Your task to perform on an android device: Search for seafood restaurants on Google Maps Image 0: 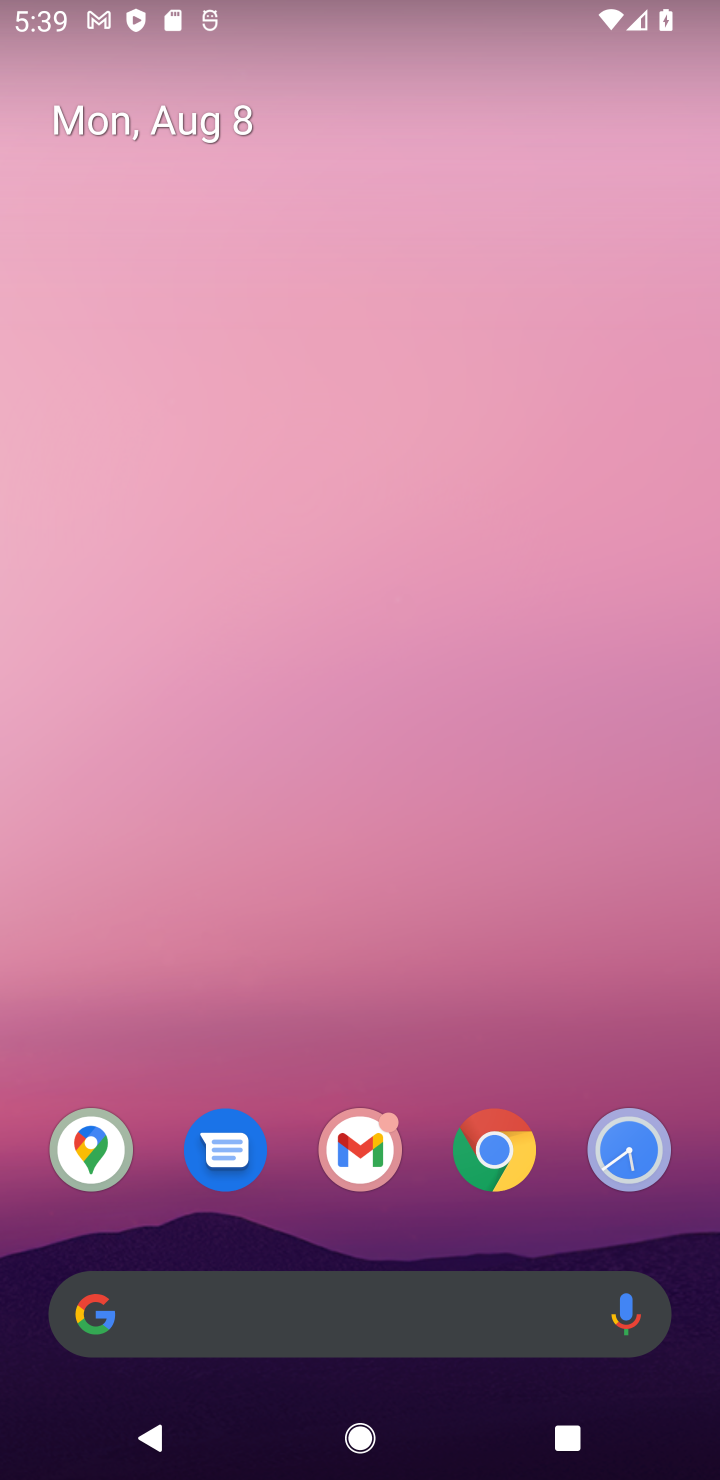
Step 0: click (109, 1161)
Your task to perform on an android device: Search for seafood restaurants on Google Maps Image 1: 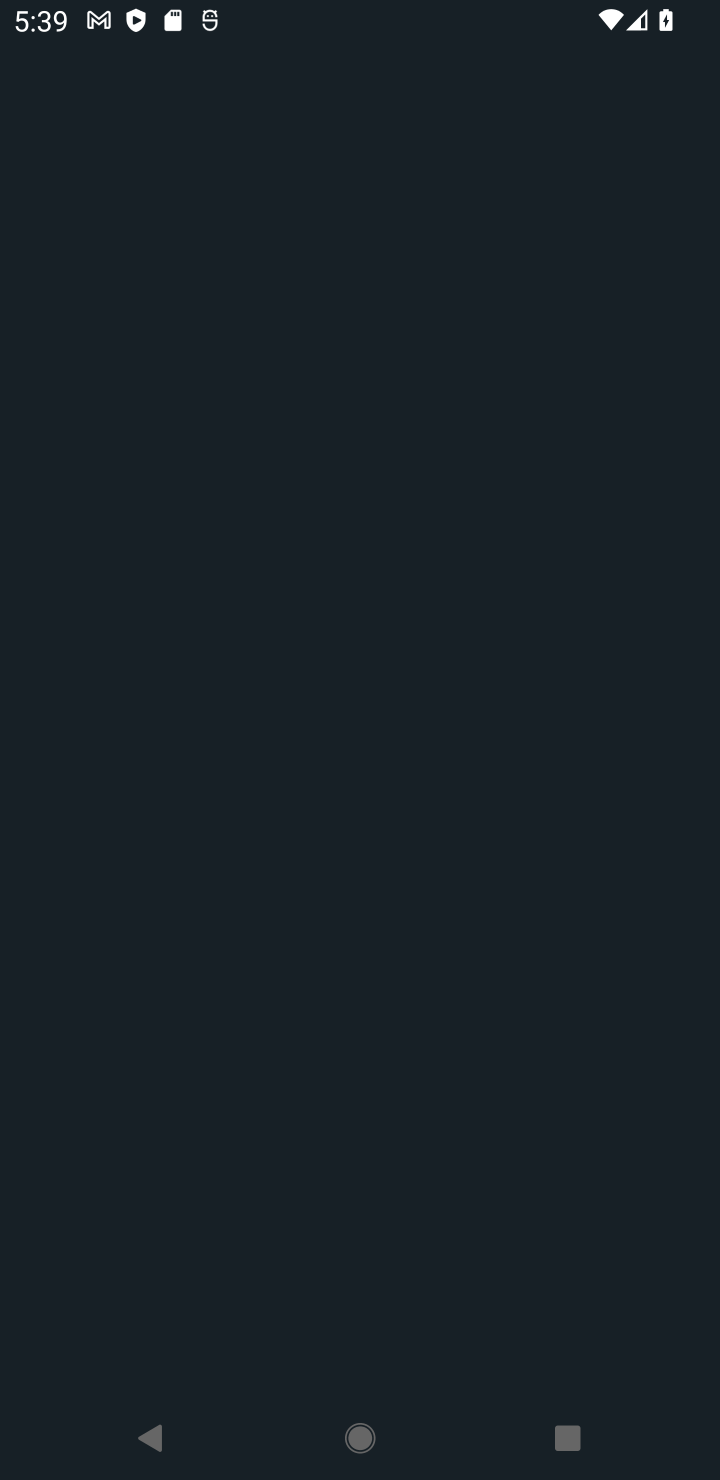
Step 1: task complete